Your task to perform on an android device: open app "Fetch Rewards" (install if not already installed) and enter user name: "Westwood@yahoo.com" and password: "qualifying" Image 0: 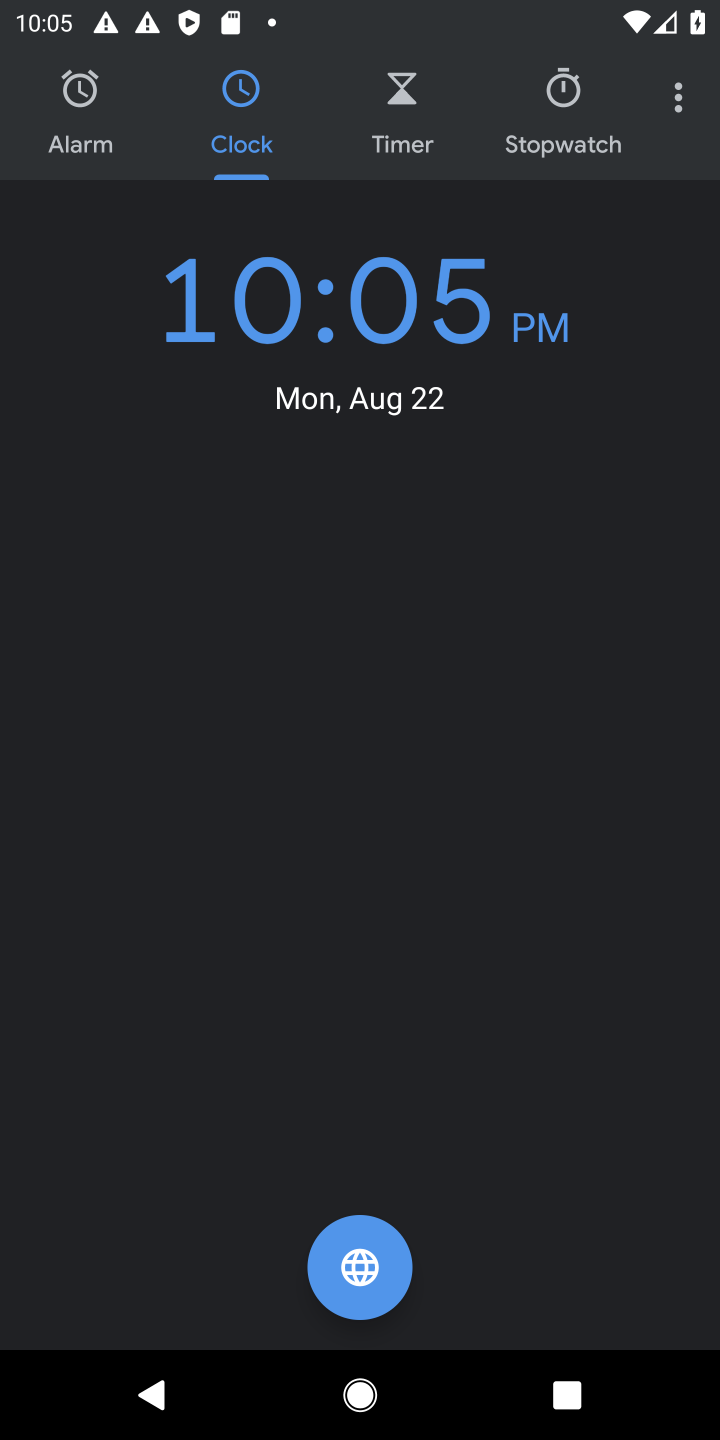
Step 0: press home button
Your task to perform on an android device: open app "Fetch Rewards" (install if not already installed) and enter user name: "Westwood@yahoo.com" and password: "qualifying" Image 1: 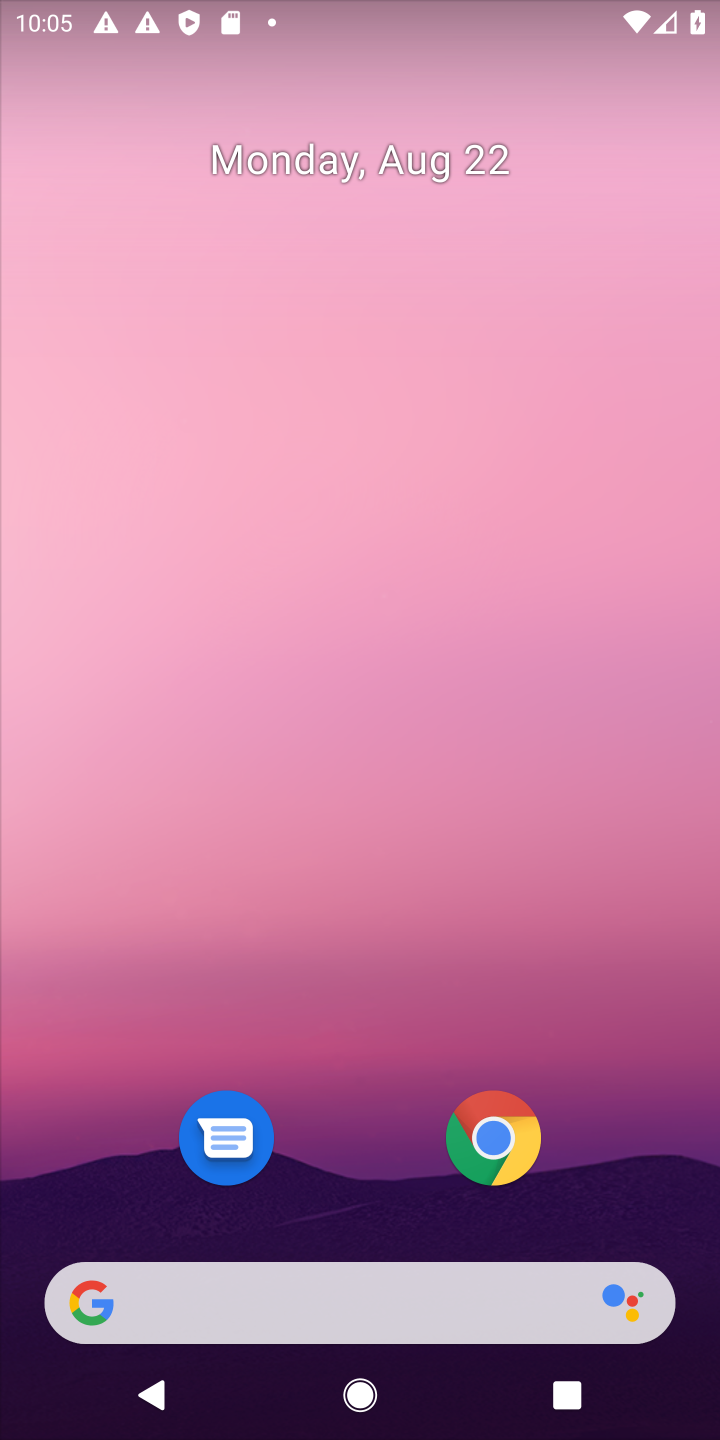
Step 1: drag from (618, 1040) to (622, 182)
Your task to perform on an android device: open app "Fetch Rewards" (install if not already installed) and enter user name: "Westwood@yahoo.com" and password: "qualifying" Image 2: 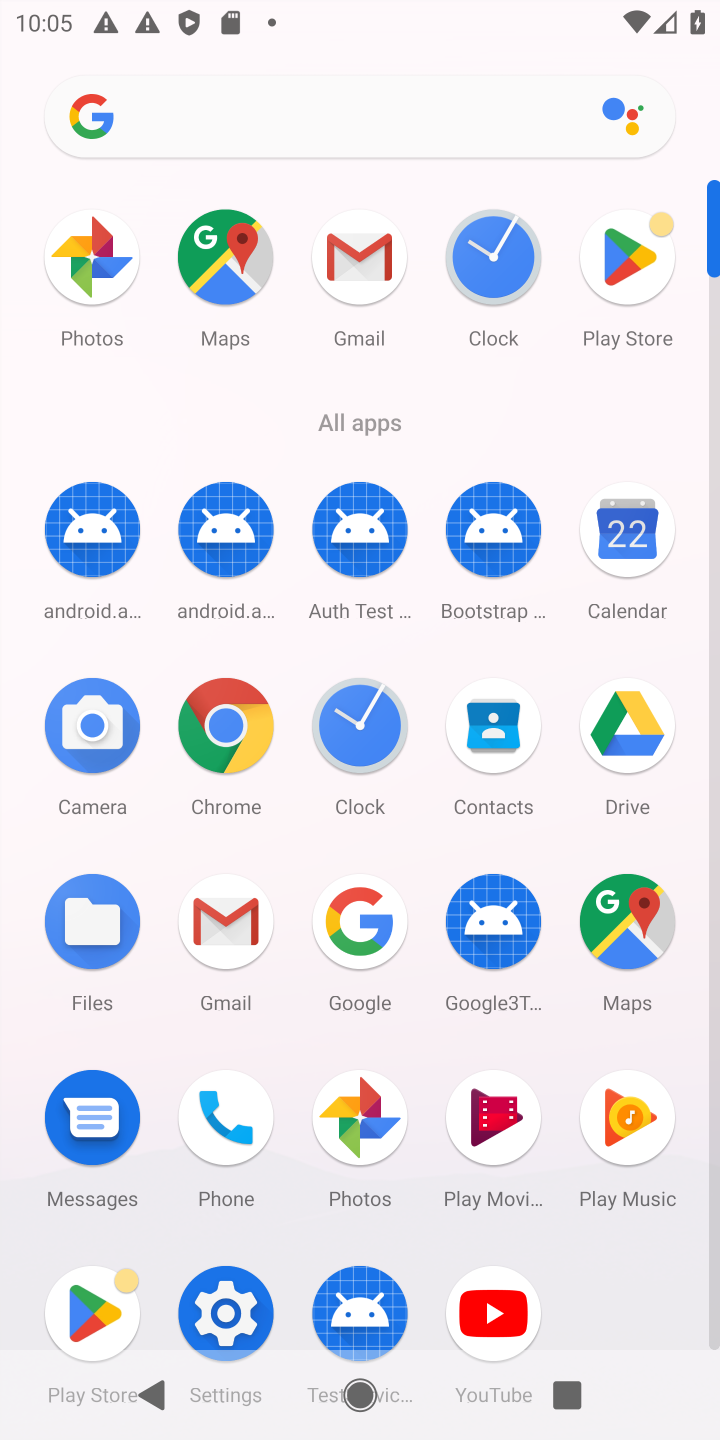
Step 2: click (633, 261)
Your task to perform on an android device: open app "Fetch Rewards" (install if not already installed) and enter user name: "Westwood@yahoo.com" and password: "qualifying" Image 3: 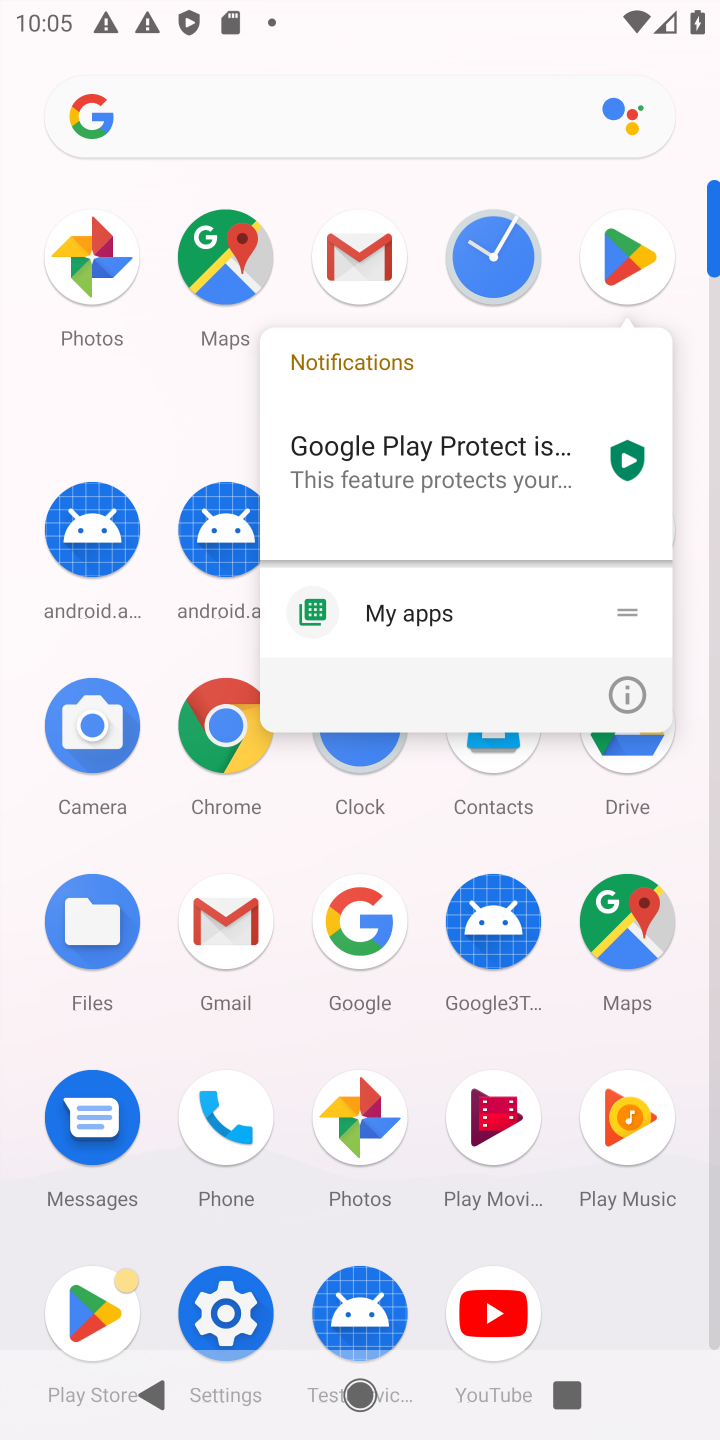
Step 3: click (636, 250)
Your task to perform on an android device: open app "Fetch Rewards" (install if not already installed) and enter user name: "Westwood@yahoo.com" and password: "qualifying" Image 4: 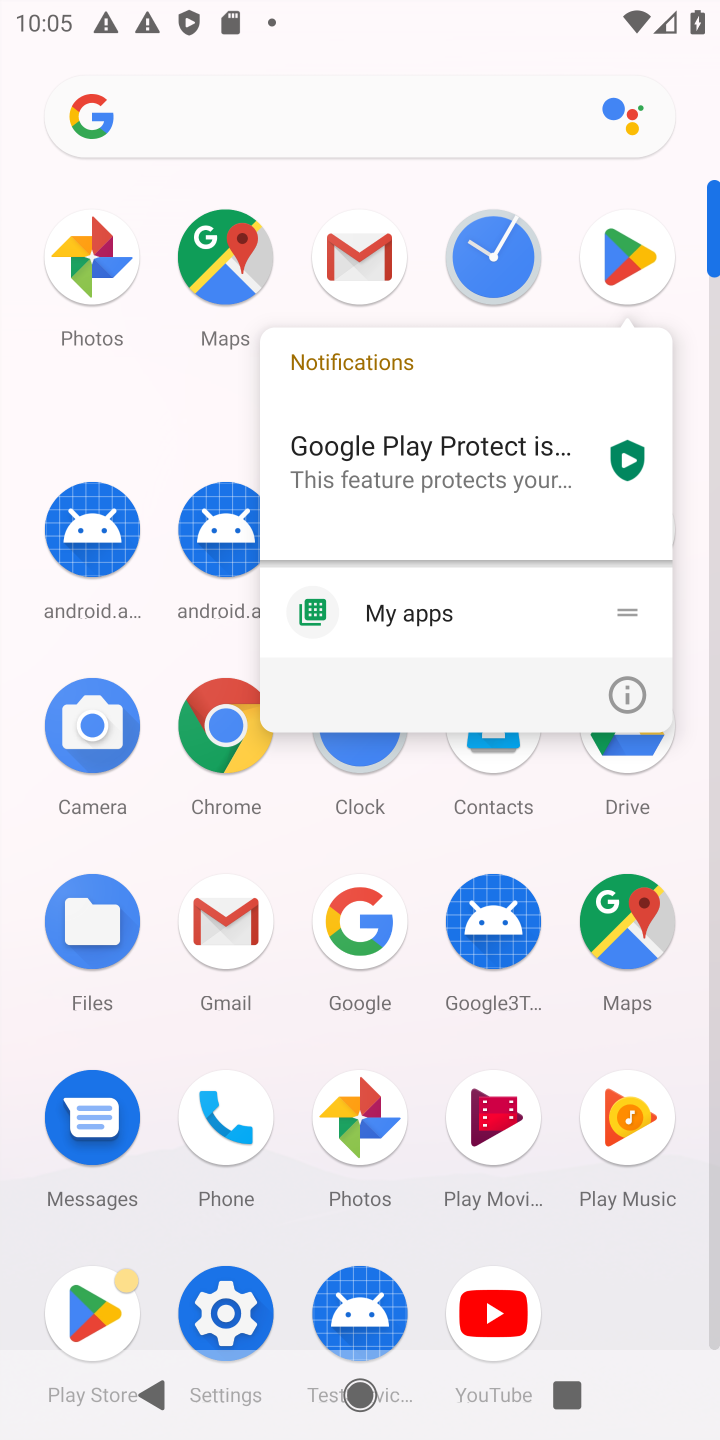
Step 4: click (615, 253)
Your task to perform on an android device: open app "Fetch Rewards" (install if not already installed) and enter user name: "Westwood@yahoo.com" and password: "qualifying" Image 5: 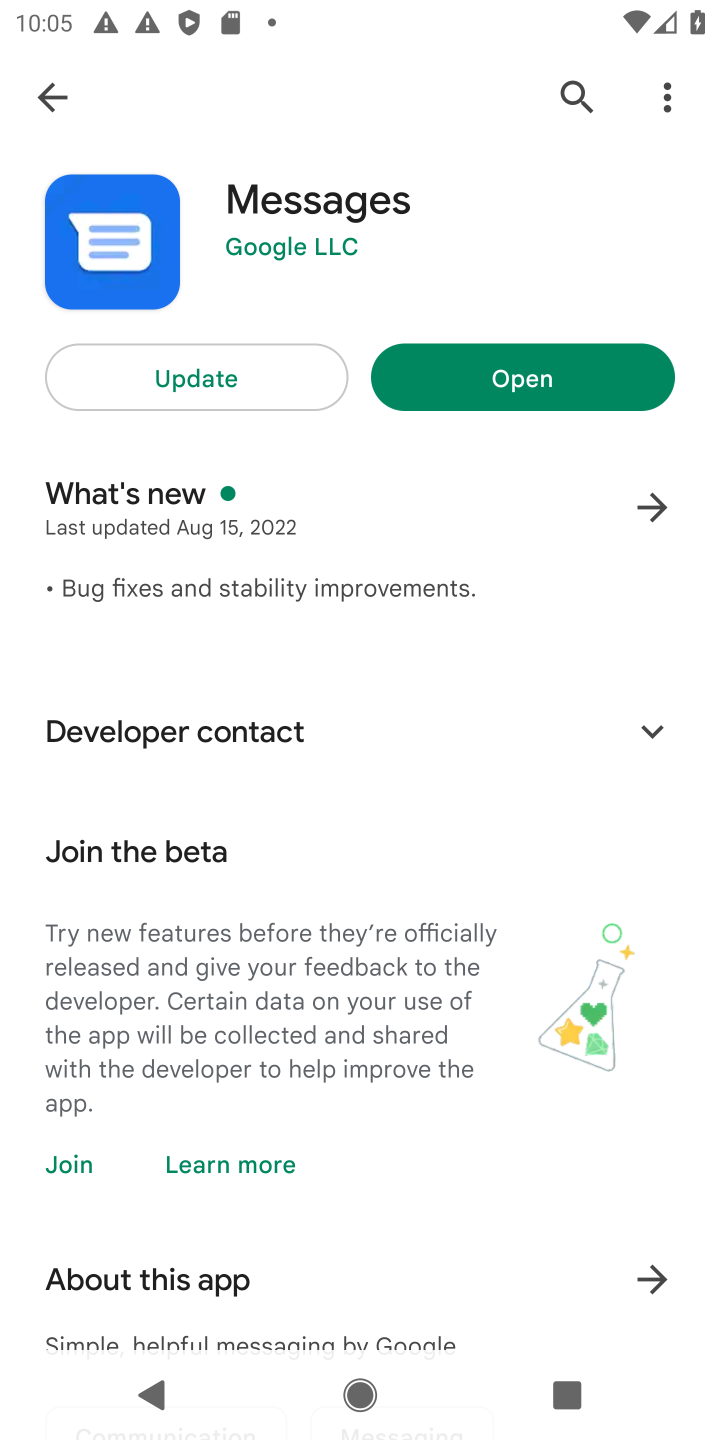
Step 5: press back button
Your task to perform on an android device: open app "Fetch Rewards" (install if not already installed) and enter user name: "Westwood@yahoo.com" and password: "qualifying" Image 6: 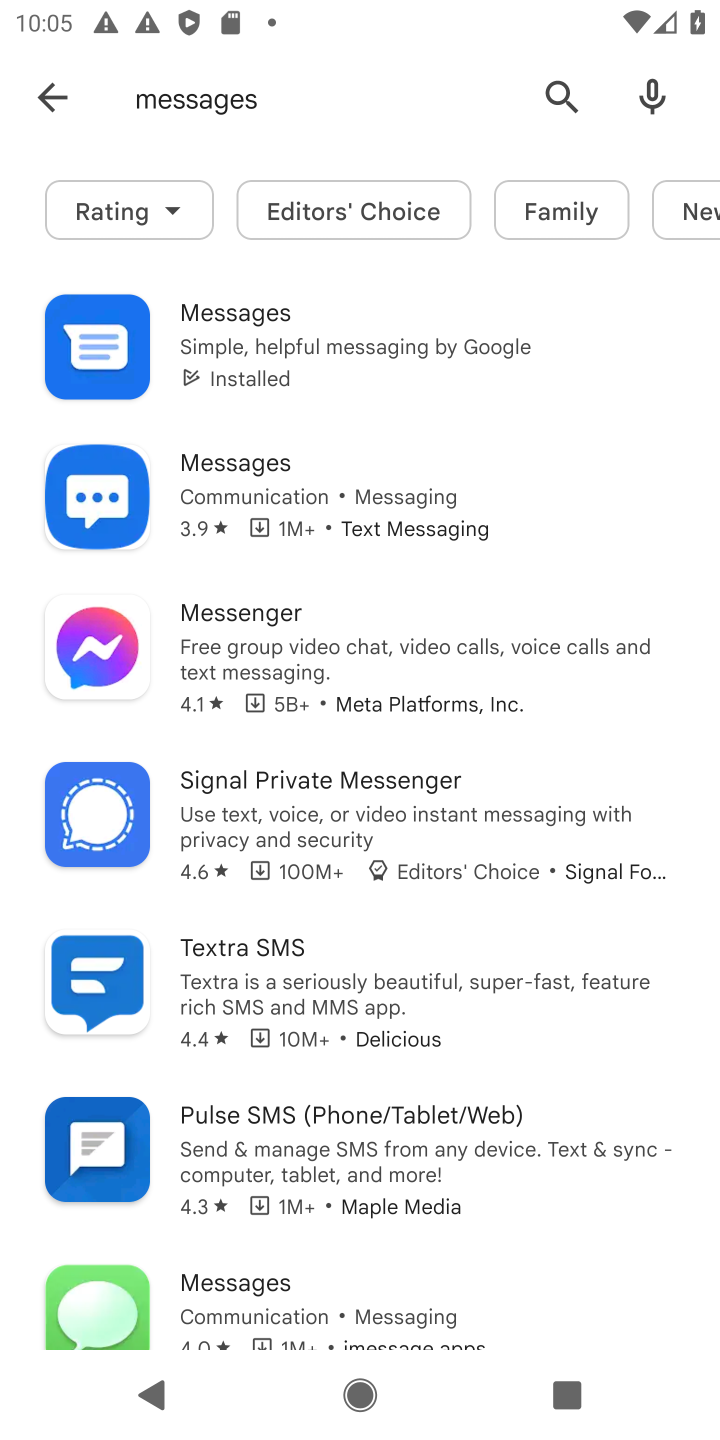
Step 6: press back button
Your task to perform on an android device: open app "Fetch Rewards" (install if not already installed) and enter user name: "Westwood@yahoo.com" and password: "qualifying" Image 7: 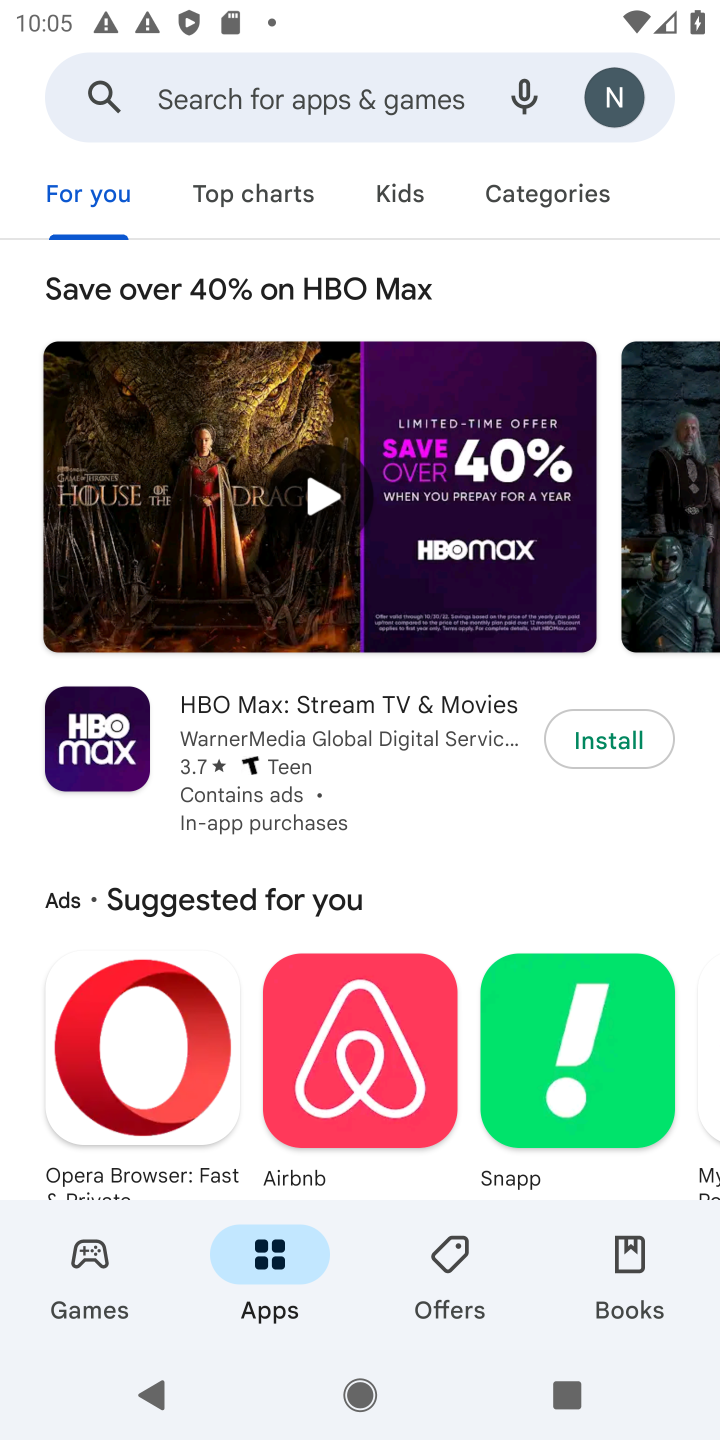
Step 7: click (332, 103)
Your task to perform on an android device: open app "Fetch Rewards" (install if not already installed) and enter user name: "Westwood@yahoo.com" and password: "qualifying" Image 8: 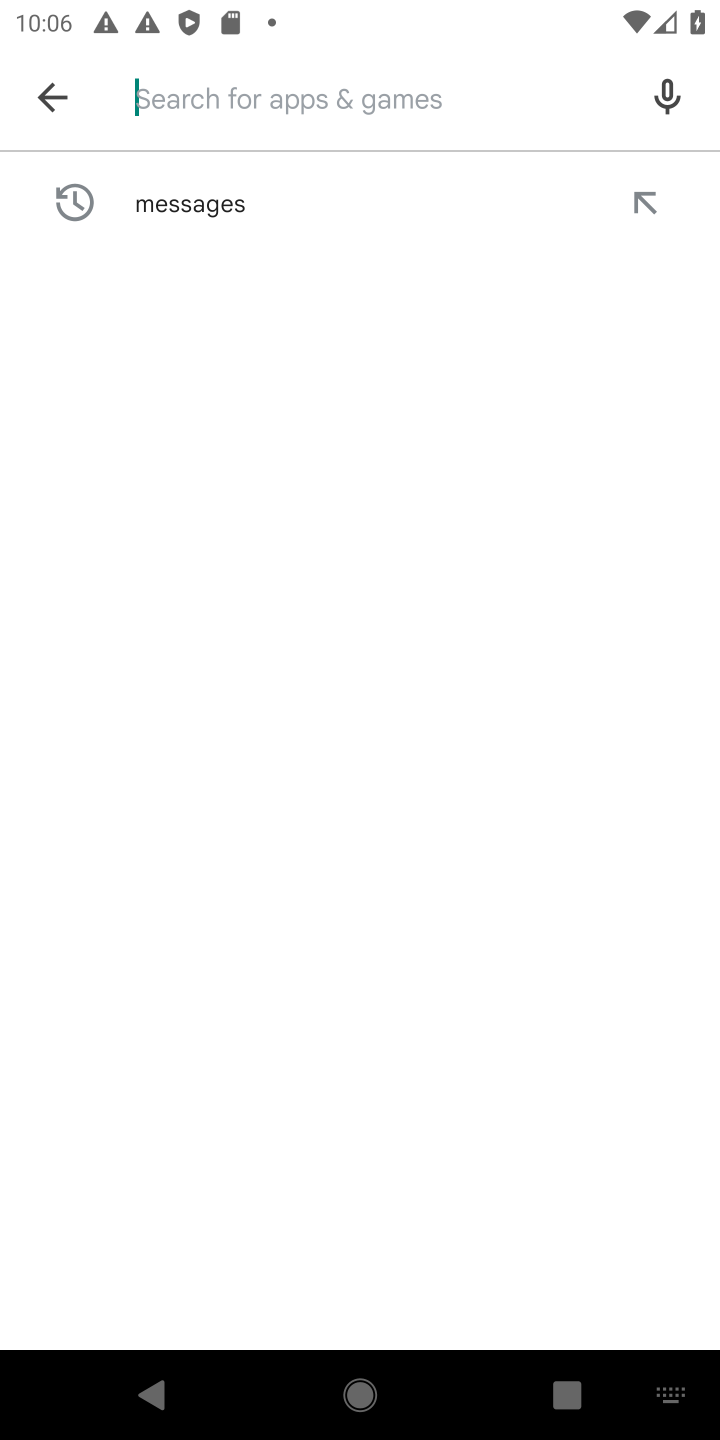
Step 8: type "Fetch Rewards"
Your task to perform on an android device: open app "Fetch Rewards" (install if not already installed) and enter user name: "Westwood@yahoo.com" and password: "qualifying" Image 9: 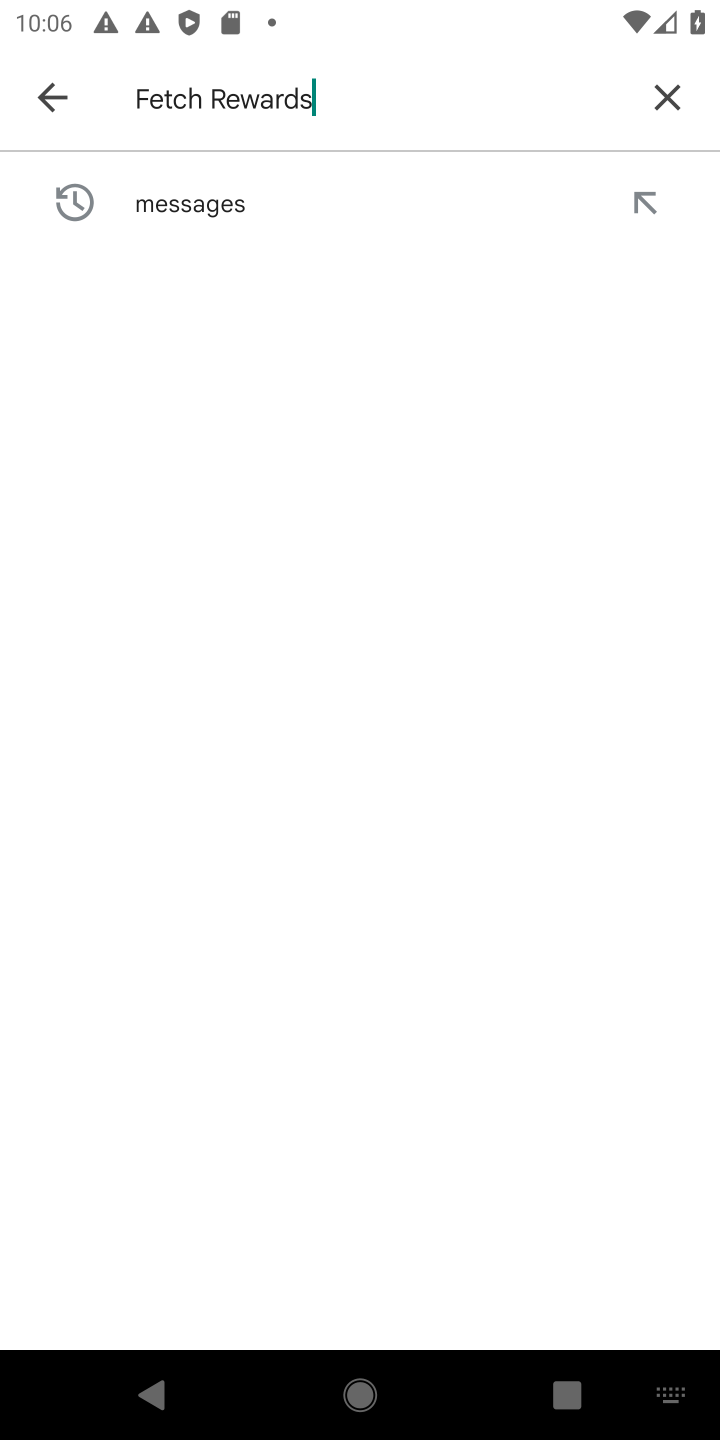
Step 9: press enter
Your task to perform on an android device: open app "Fetch Rewards" (install if not already installed) and enter user name: "Westwood@yahoo.com" and password: "qualifying" Image 10: 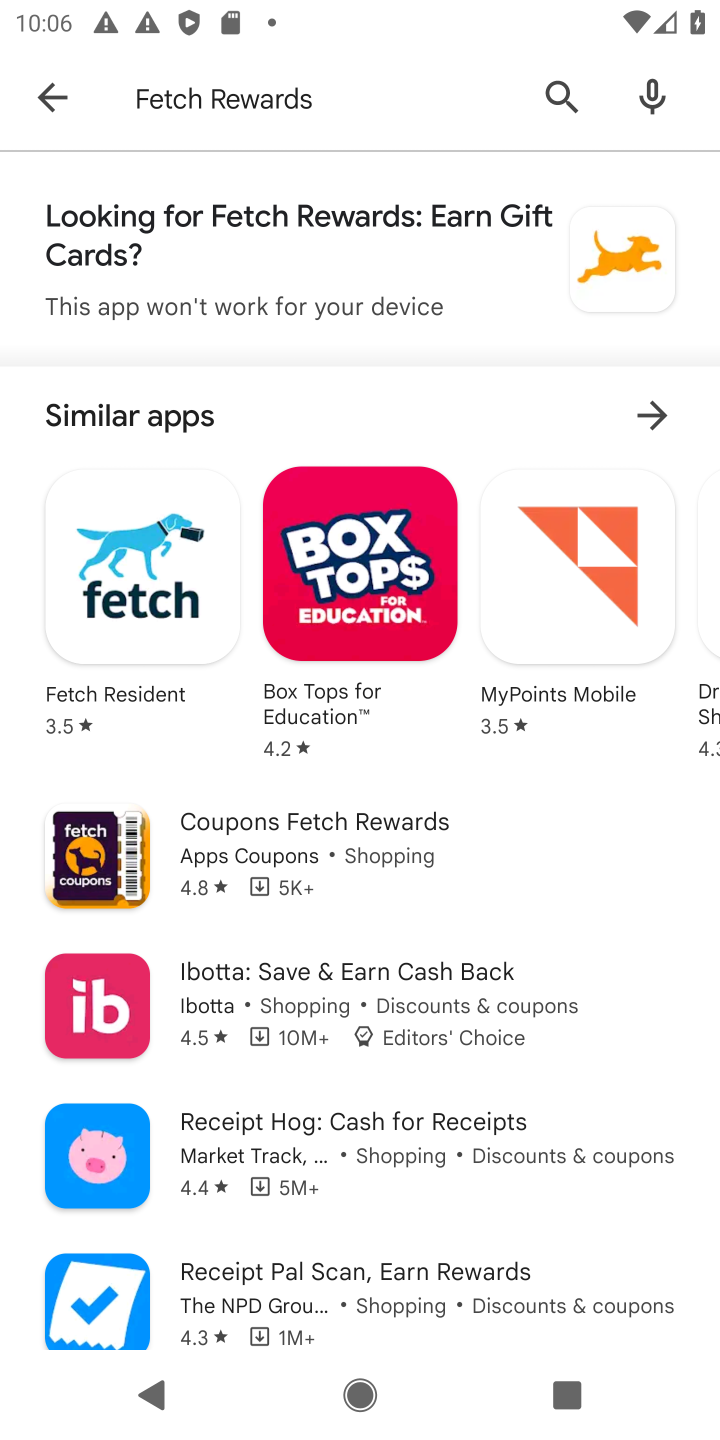
Step 10: task complete